Your task to perform on an android device: turn off airplane mode Image 0: 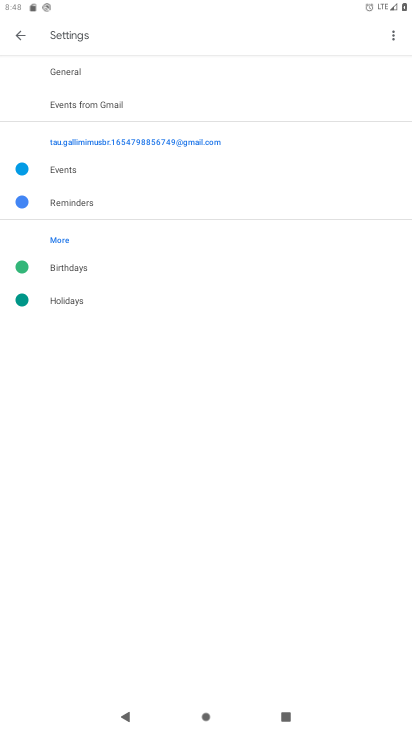
Step 0: press home button
Your task to perform on an android device: turn off airplane mode Image 1: 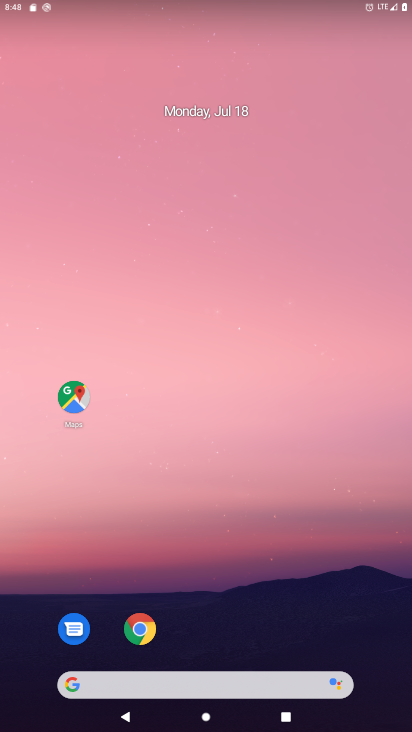
Step 1: drag from (208, 595) to (248, 11)
Your task to perform on an android device: turn off airplane mode Image 2: 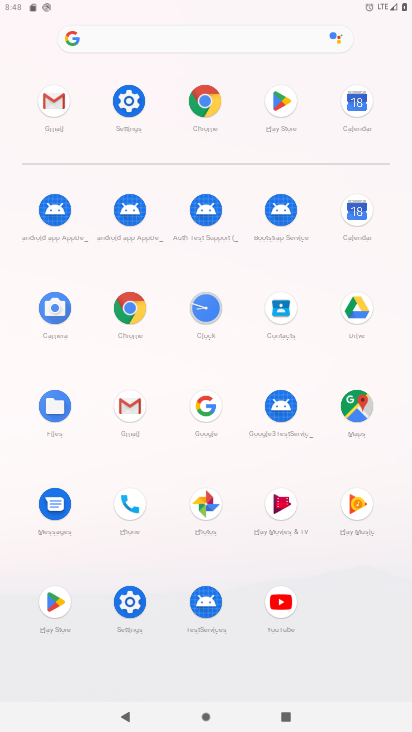
Step 2: click (130, 614)
Your task to perform on an android device: turn off airplane mode Image 3: 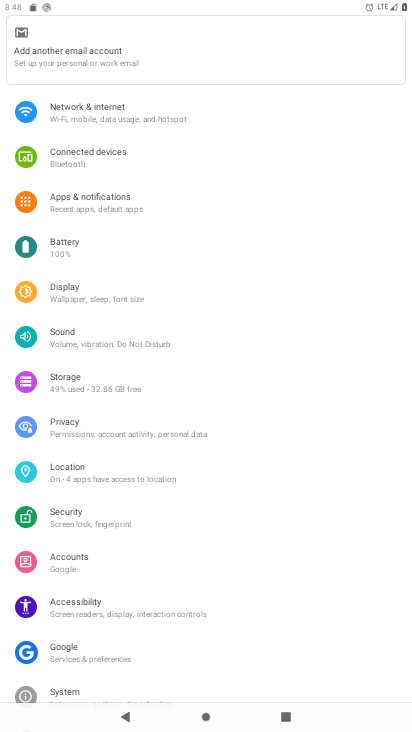
Step 3: click (102, 111)
Your task to perform on an android device: turn off airplane mode Image 4: 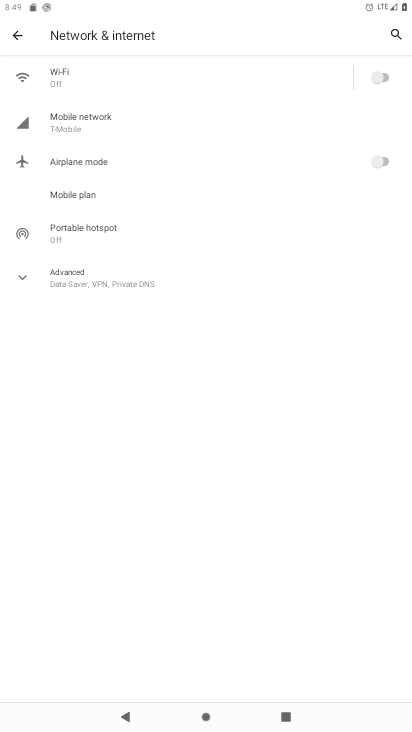
Step 4: task complete